Your task to perform on an android device: move a message to another label in the gmail app Image 0: 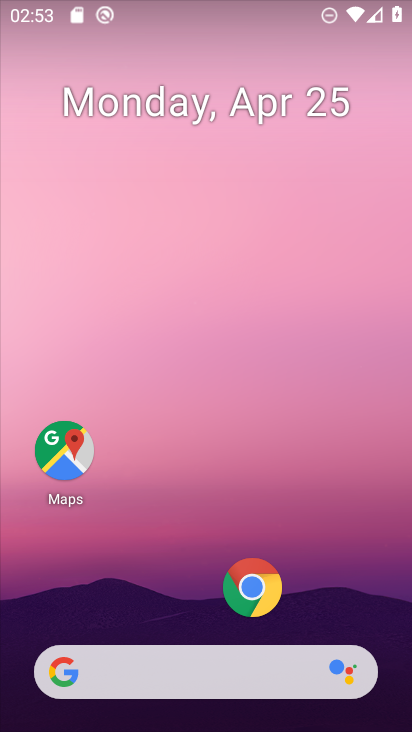
Step 0: drag from (205, 514) to (209, 2)
Your task to perform on an android device: move a message to another label in the gmail app Image 1: 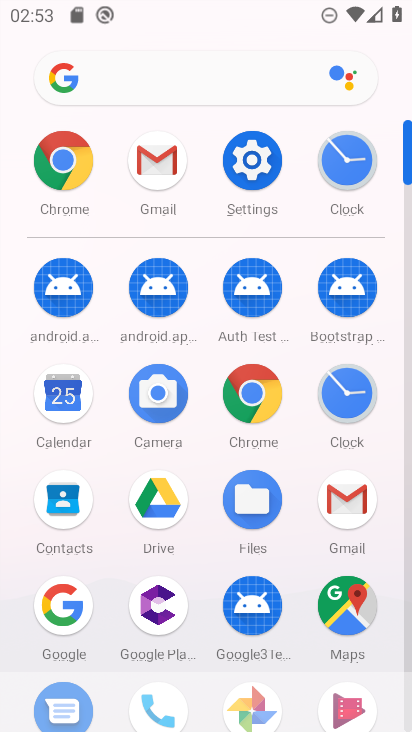
Step 1: click (346, 493)
Your task to perform on an android device: move a message to another label in the gmail app Image 2: 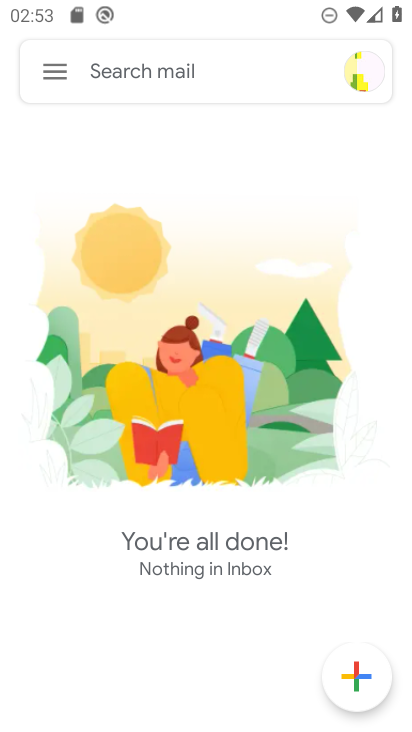
Step 2: click (46, 63)
Your task to perform on an android device: move a message to another label in the gmail app Image 3: 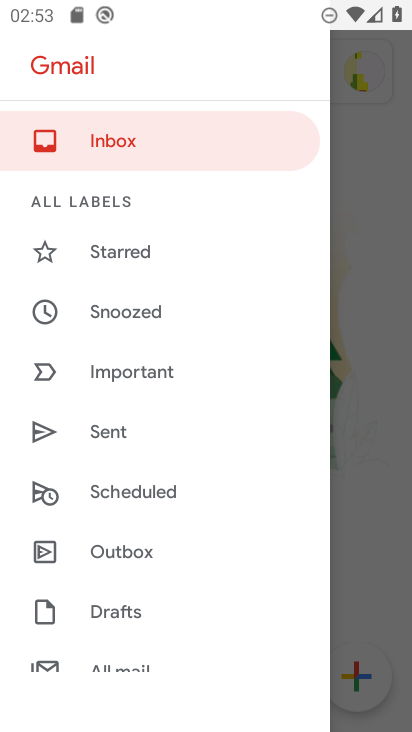
Step 3: drag from (134, 617) to (155, 172)
Your task to perform on an android device: move a message to another label in the gmail app Image 4: 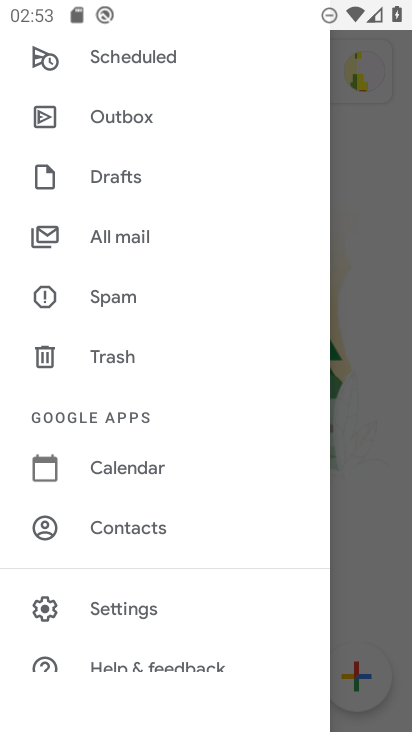
Step 4: click (161, 231)
Your task to perform on an android device: move a message to another label in the gmail app Image 5: 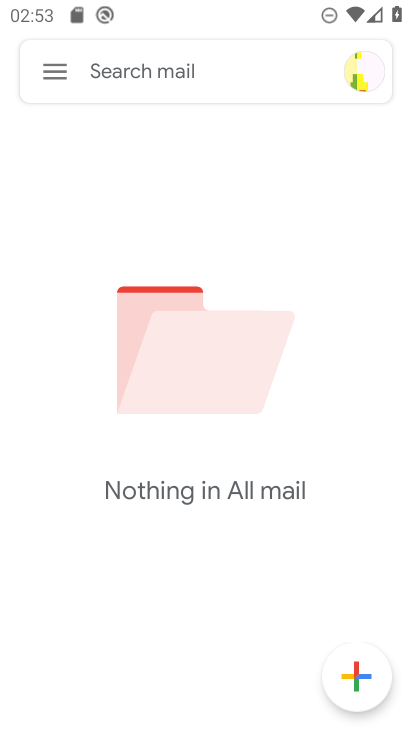
Step 5: task complete